Your task to perform on an android device: Open Wikipedia Image 0: 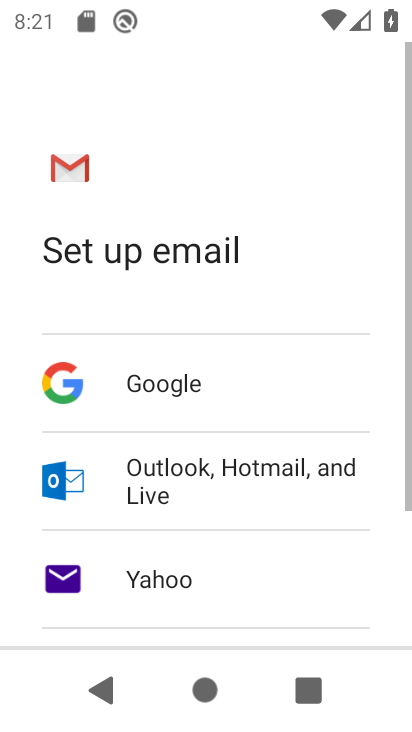
Step 0: press home button
Your task to perform on an android device: Open Wikipedia Image 1: 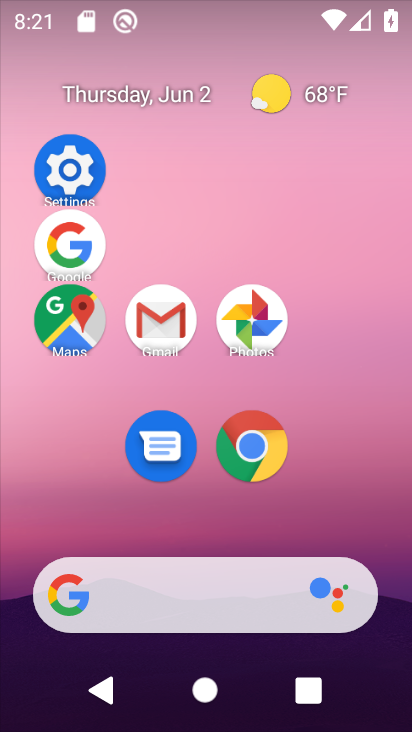
Step 1: click (271, 441)
Your task to perform on an android device: Open Wikipedia Image 2: 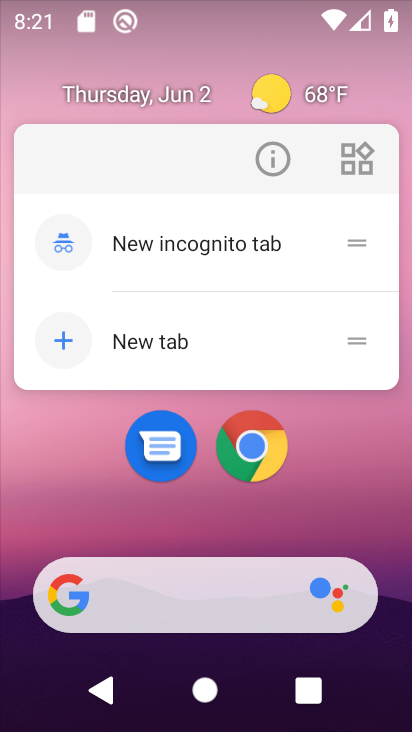
Step 2: click (238, 479)
Your task to perform on an android device: Open Wikipedia Image 3: 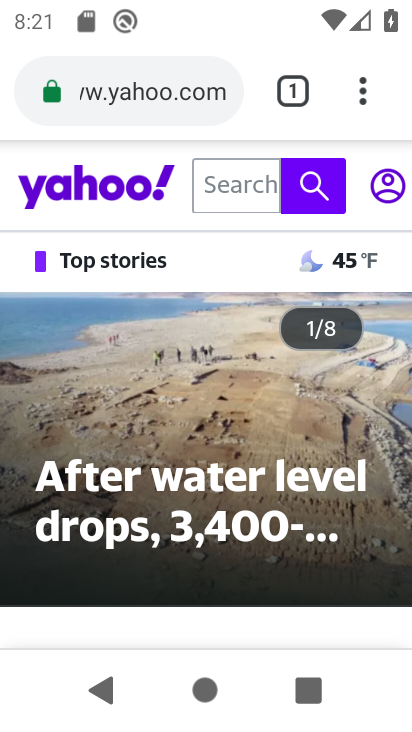
Step 3: click (299, 96)
Your task to perform on an android device: Open Wikipedia Image 4: 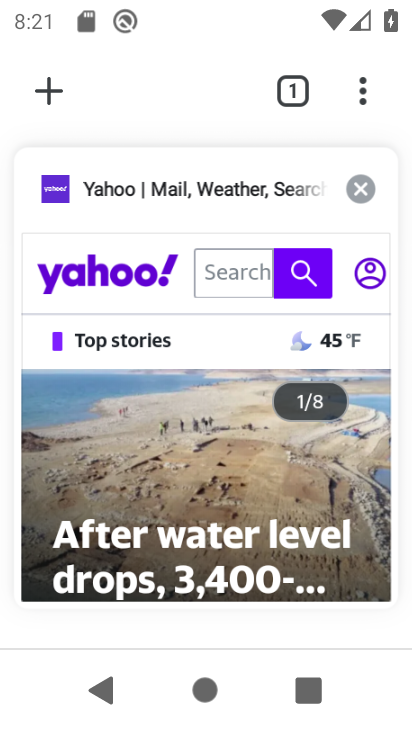
Step 4: click (76, 101)
Your task to perform on an android device: Open Wikipedia Image 5: 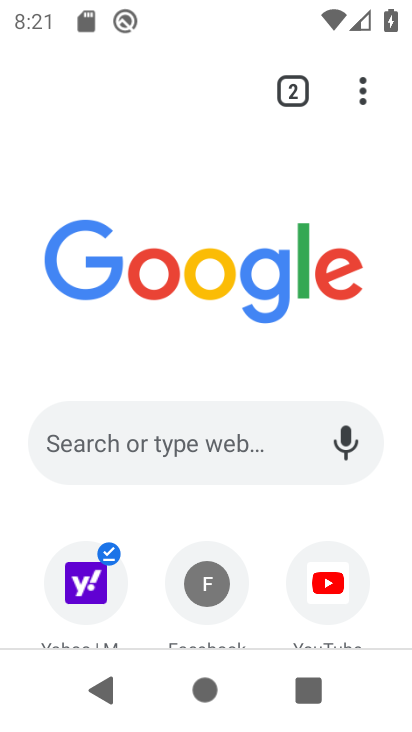
Step 5: drag from (258, 320) to (241, 102)
Your task to perform on an android device: Open Wikipedia Image 6: 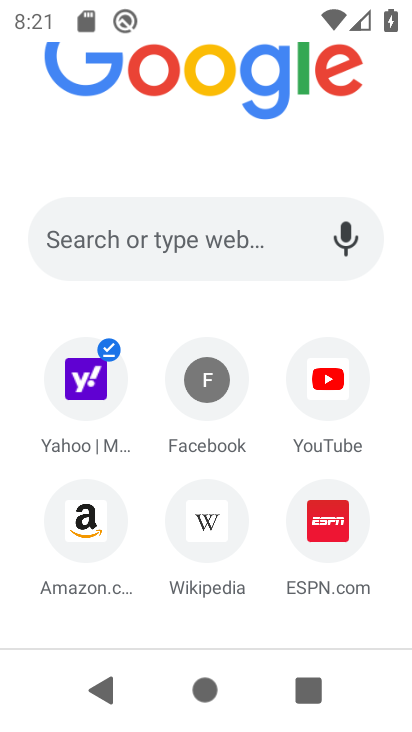
Step 6: click (207, 524)
Your task to perform on an android device: Open Wikipedia Image 7: 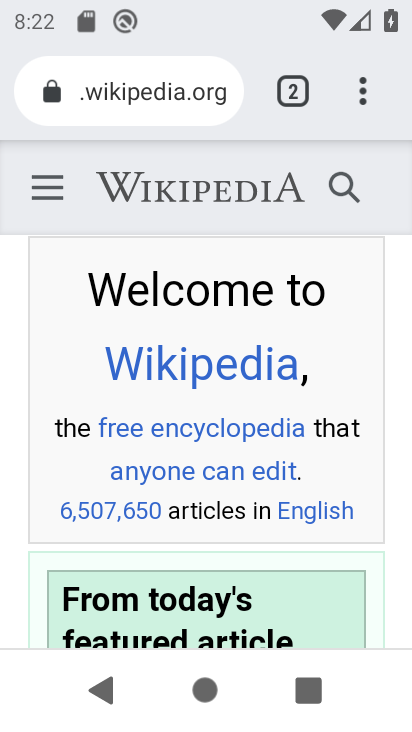
Step 7: task complete